Your task to perform on an android device: Open Chrome and go to settings Image 0: 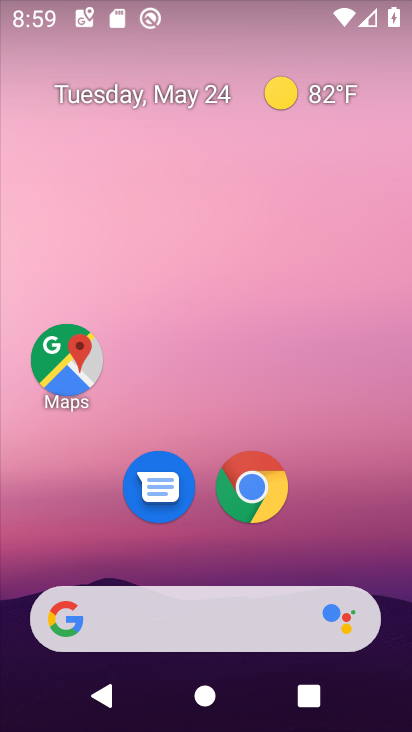
Step 0: drag from (322, 500) to (316, 81)
Your task to perform on an android device: Open Chrome and go to settings Image 1: 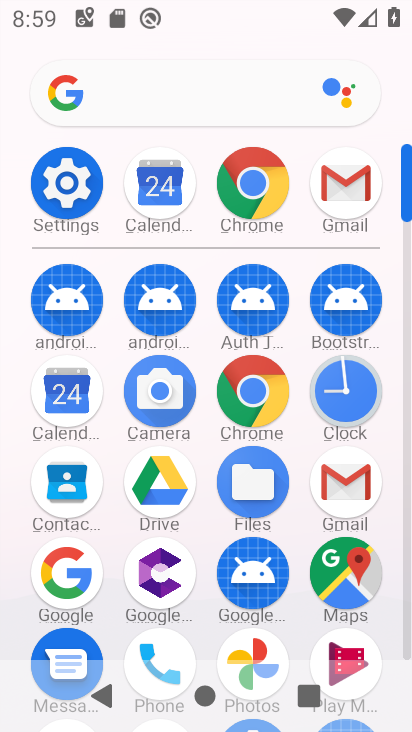
Step 1: click (52, 201)
Your task to perform on an android device: Open Chrome and go to settings Image 2: 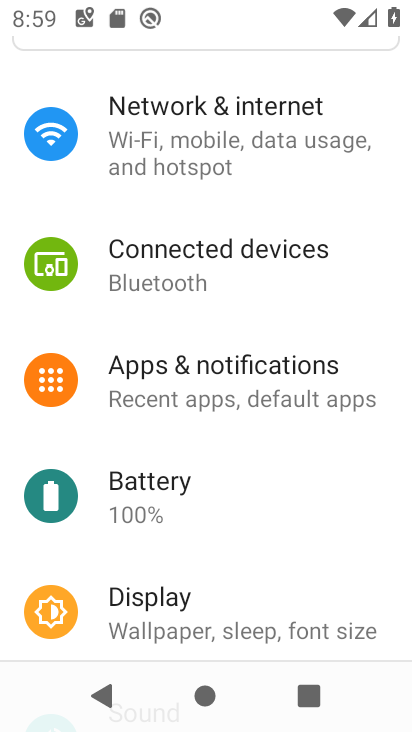
Step 2: press home button
Your task to perform on an android device: Open Chrome and go to settings Image 3: 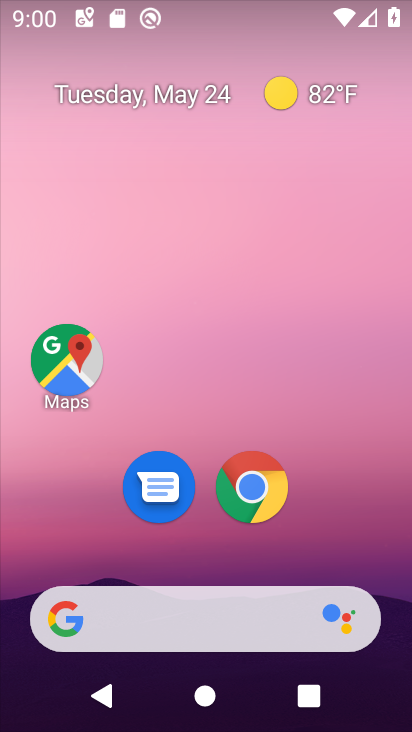
Step 3: click (266, 498)
Your task to perform on an android device: Open Chrome and go to settings Image 4: 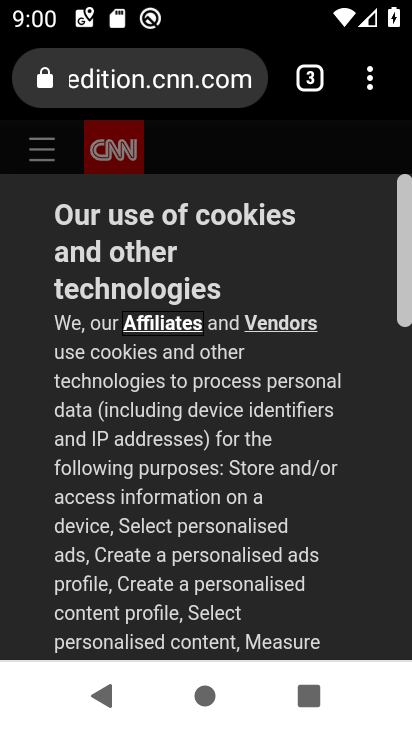
Step 4: task complete